Your task to perform on an android device: Turn on the flashlight Image 0: 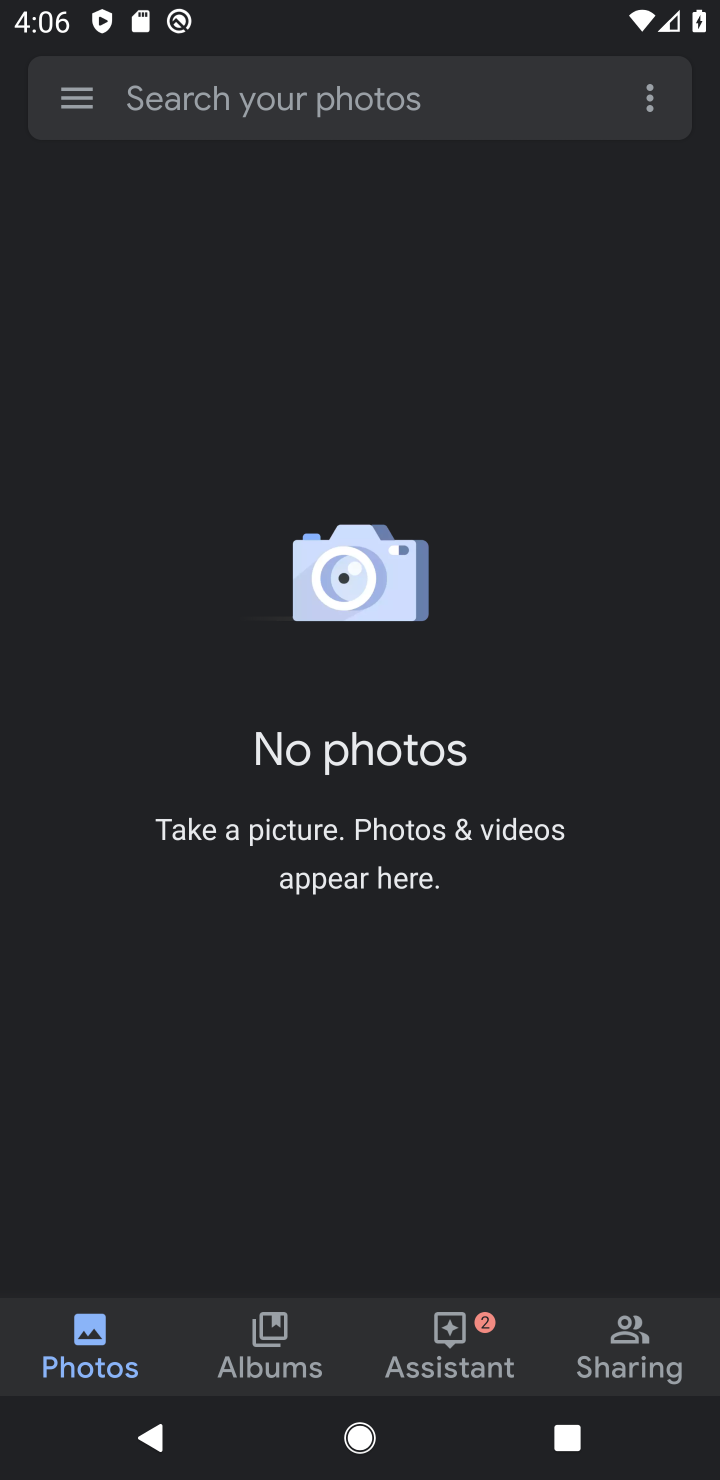
Step 0: press home button
Your task to perform on an android device: Turn on the flashlight Image 1: 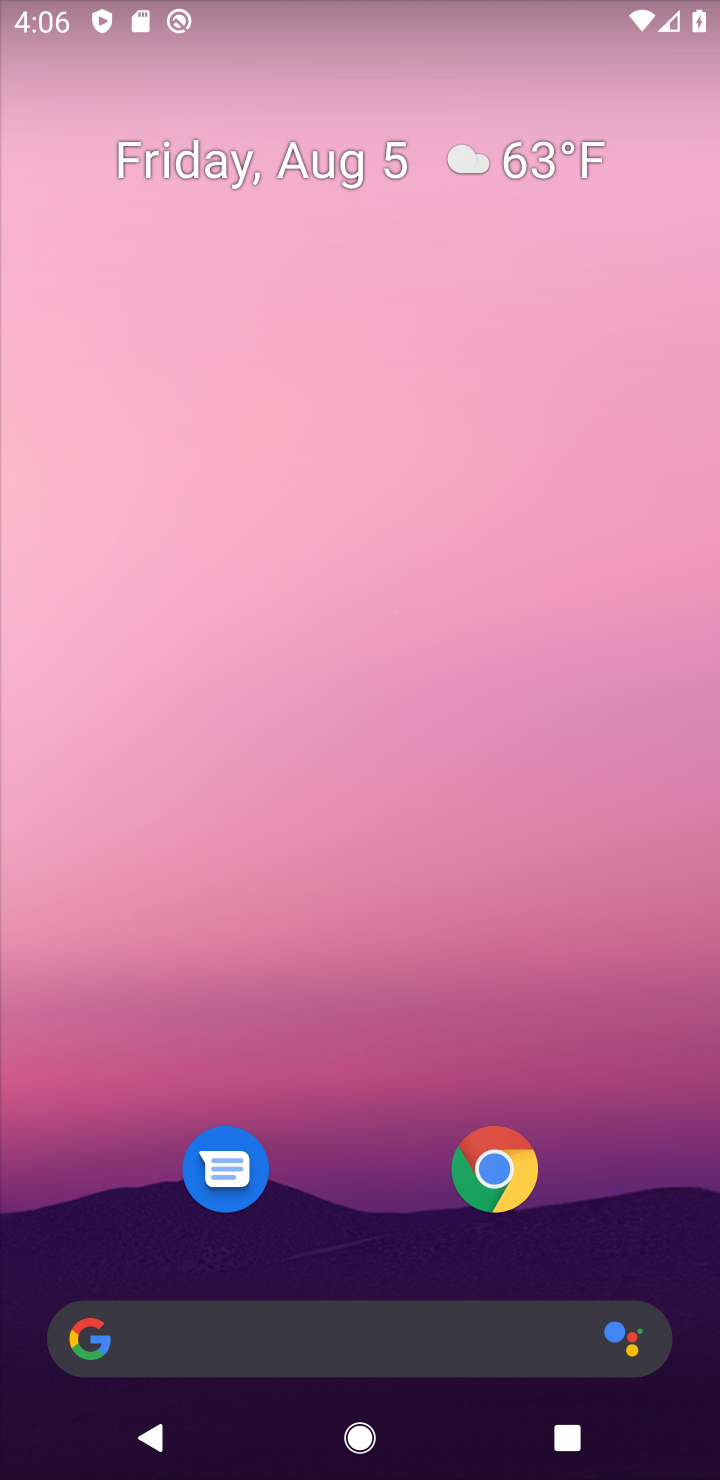
Step 1: drag from (343, 1331) to (341, 449)
Your task to perform on an android device: Turn on the flashlight Image 2: 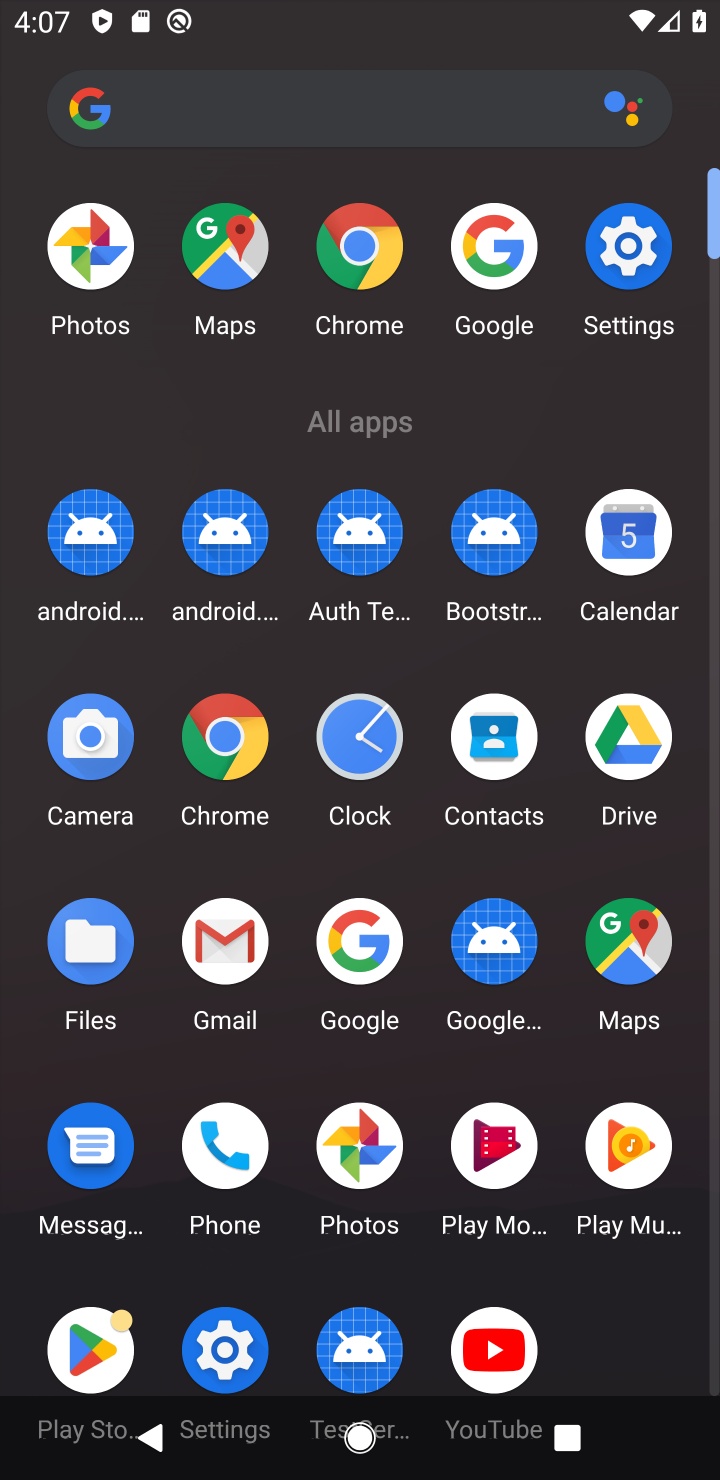
Step 2: drag from (392, 3) to (566, 868)
Your task to perform on an android device: Turn on the flashlight Image 3: 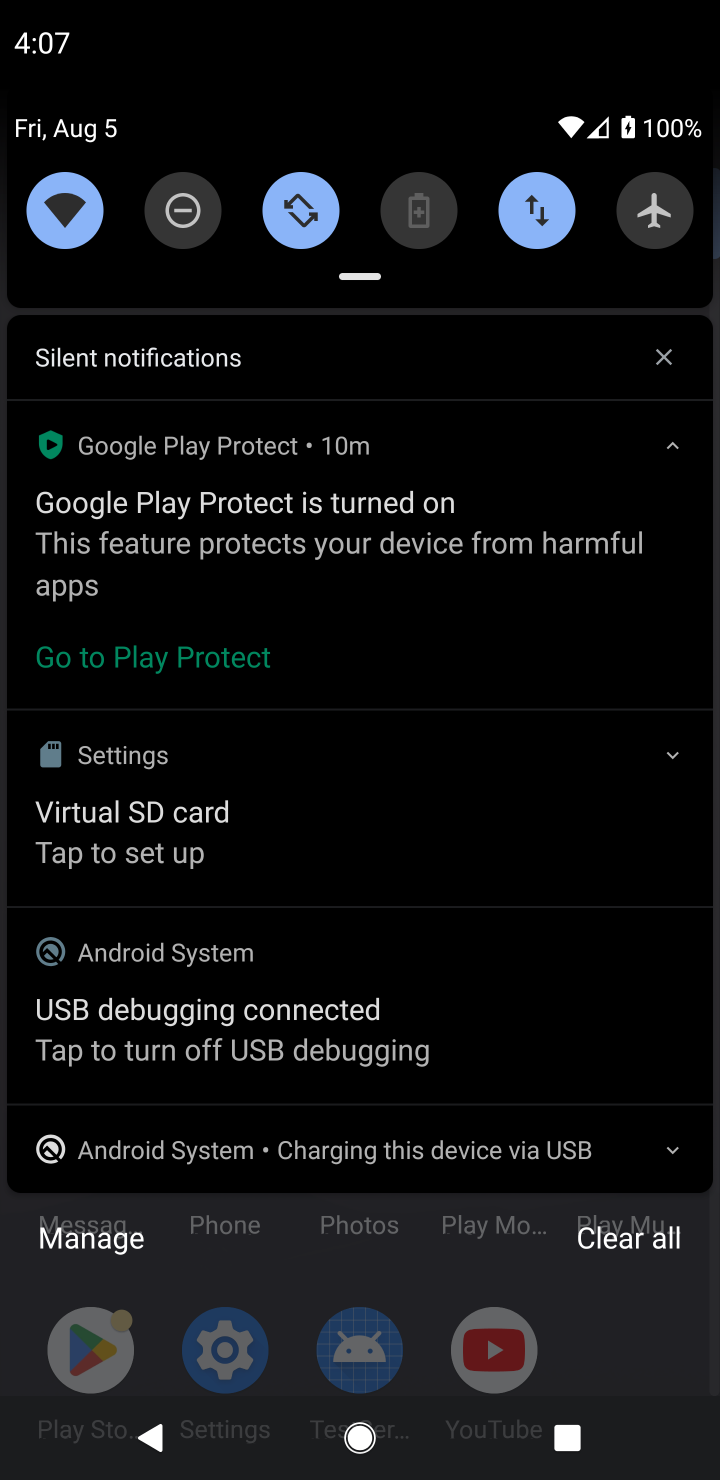
Step 3: drag from (385, 193) to (486, 896)
Your task to perform on an android device: Turn on the flashlight Image 4: 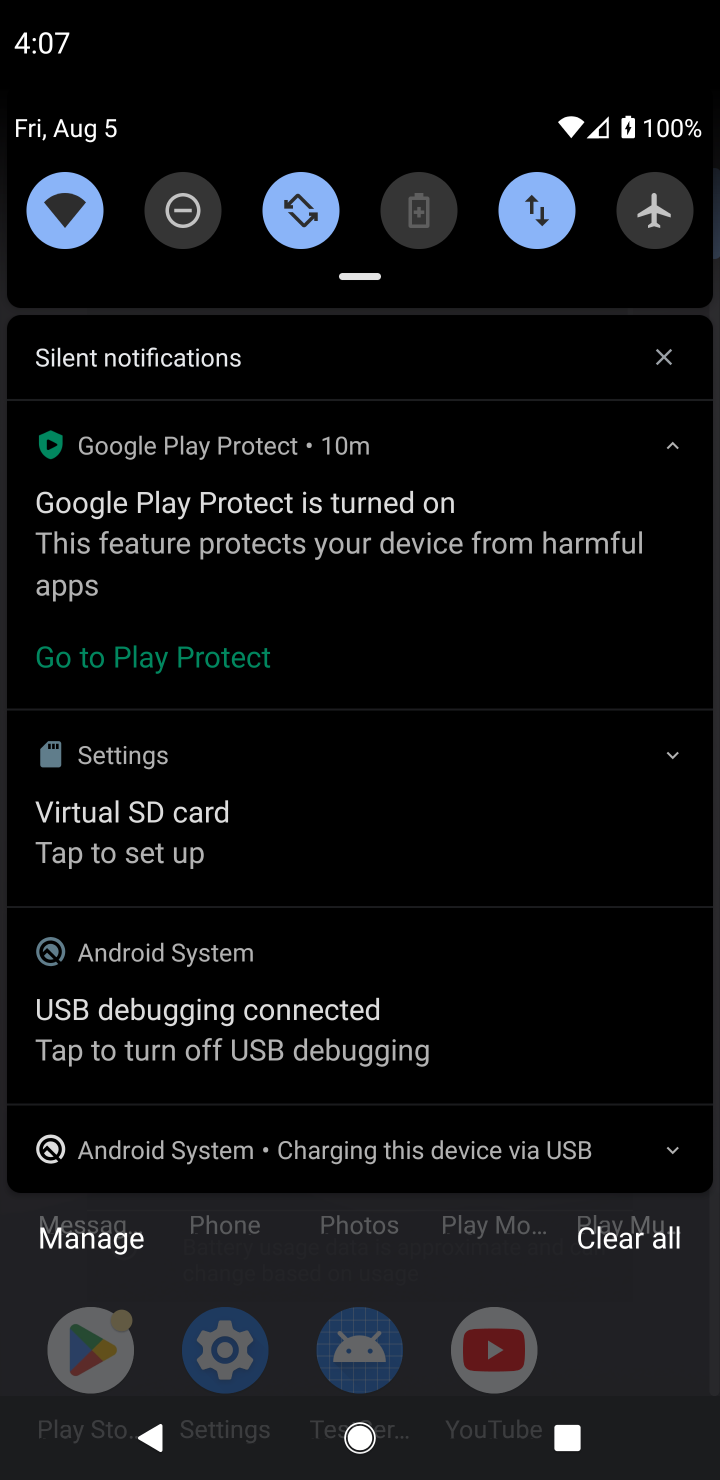
Step 4: drag from (426, 263) to (590, 917)
Your task to perform on an android device: Turn on the flashlight Image 5: 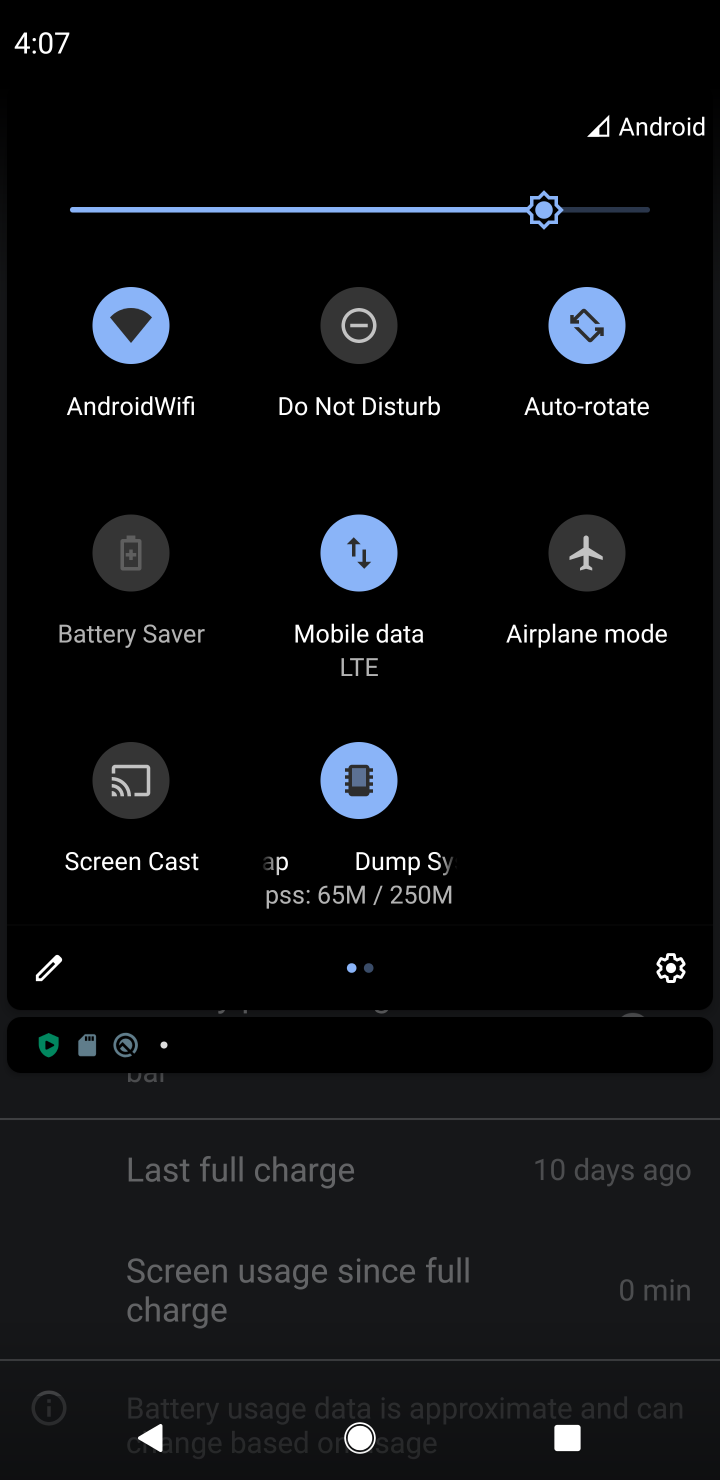
Step 5: drag from (623, 771) to (7, 836)
Your task to perform on an android device: Turn on the flashlight Image 6: 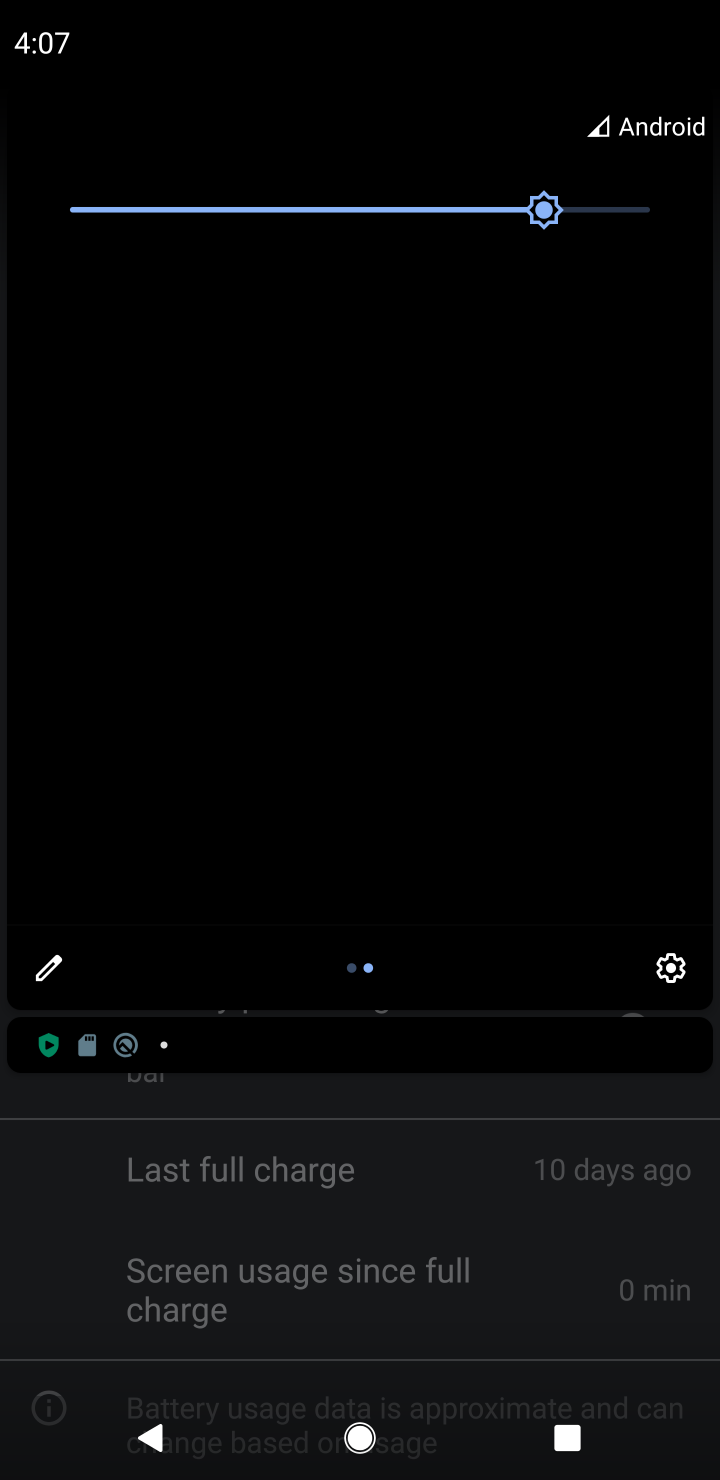
Step 6: click (60, 968)
Your task to perform on an android device: Turn on the flashlight Image 7: 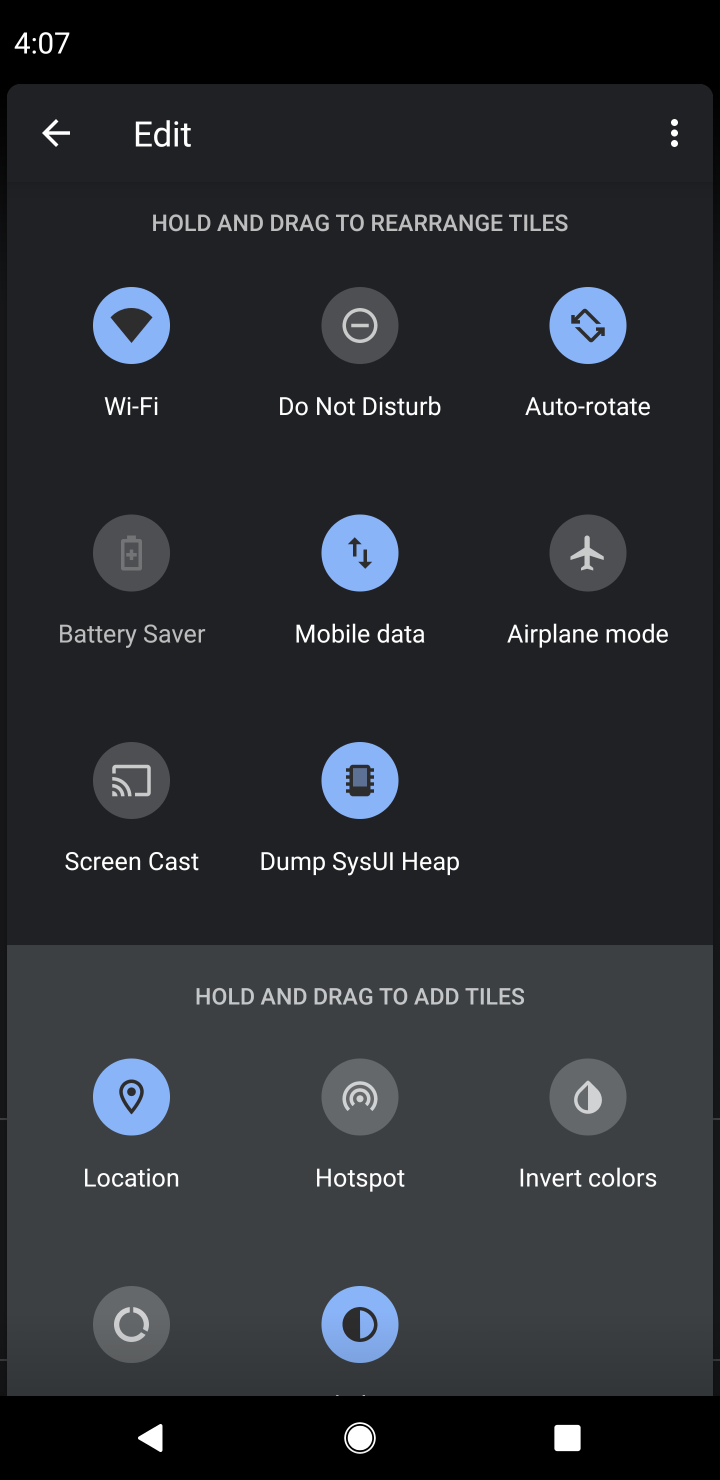
Step 7: task complete